Your task to perform on an android device: change notifications settings Image 0: 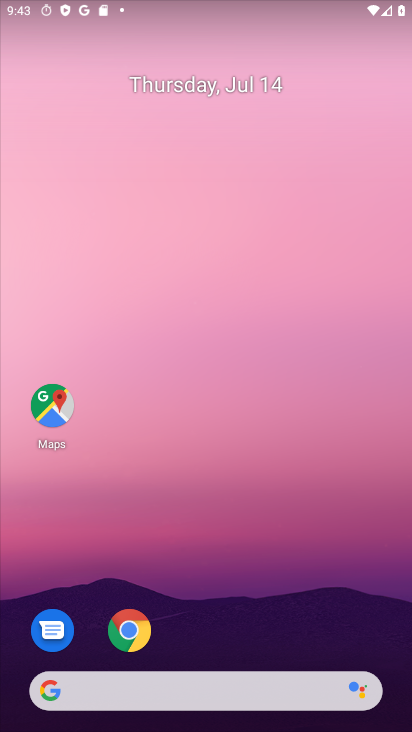
Step 0: drag from (44, 724) to (159, 0)
Your task to perform on an android device: change notifications settings Image 1: 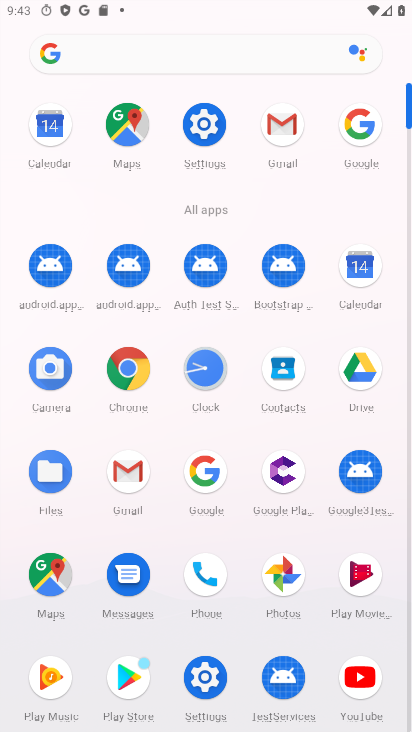
Step 1: click (205, 689)
Your task to perform on an android device: change notifications settings Image 2: 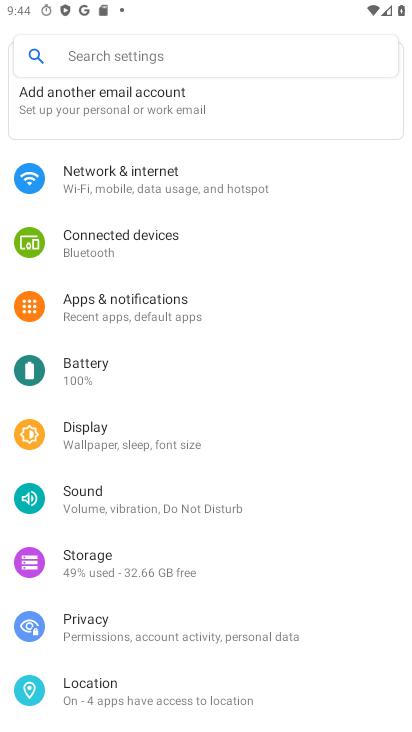
Step 2: click (105, 314)
Your task to perform on an android device: change notifications settings Image 3: 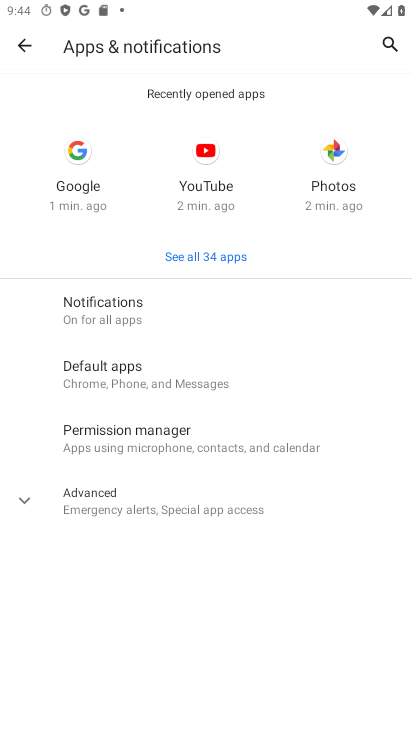
Step 3: click (103, 305)
Your task to perform on an android device: change notifications settings Image 4: 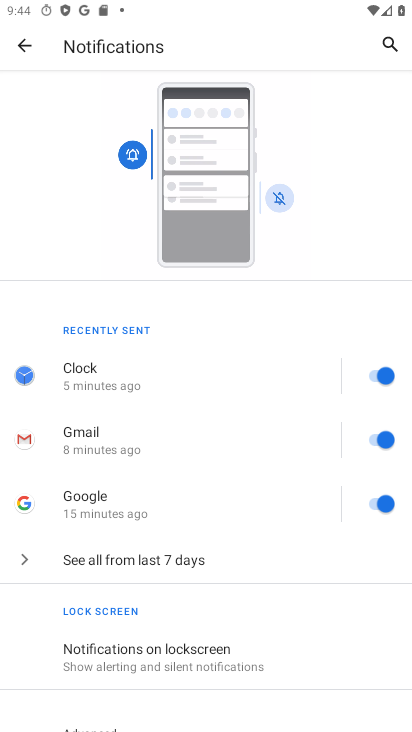
Step 4: task complete